Your task to perform on an android device: Show the shopping cart on costco.com. Search for "alienware area 51" on costco.com, select the first entry, and add it to the cart. Image 0: 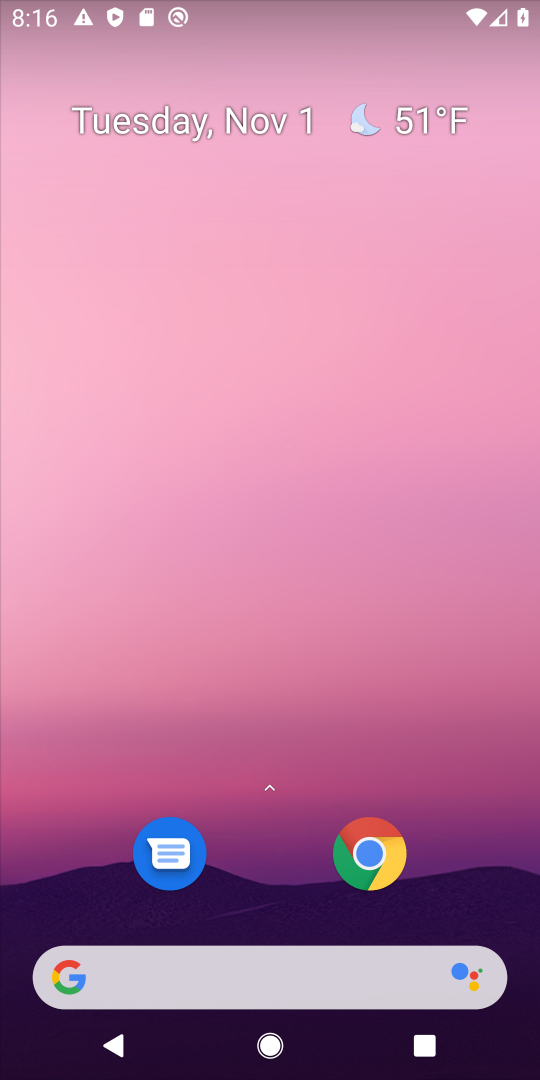
Step 0: click (174, 982)
Your task to perform on an android device: Show the shopping cart on costco.com. Search for "alienware area 51" on costco.com, select the first entry, and add it to the cart. Image 1: 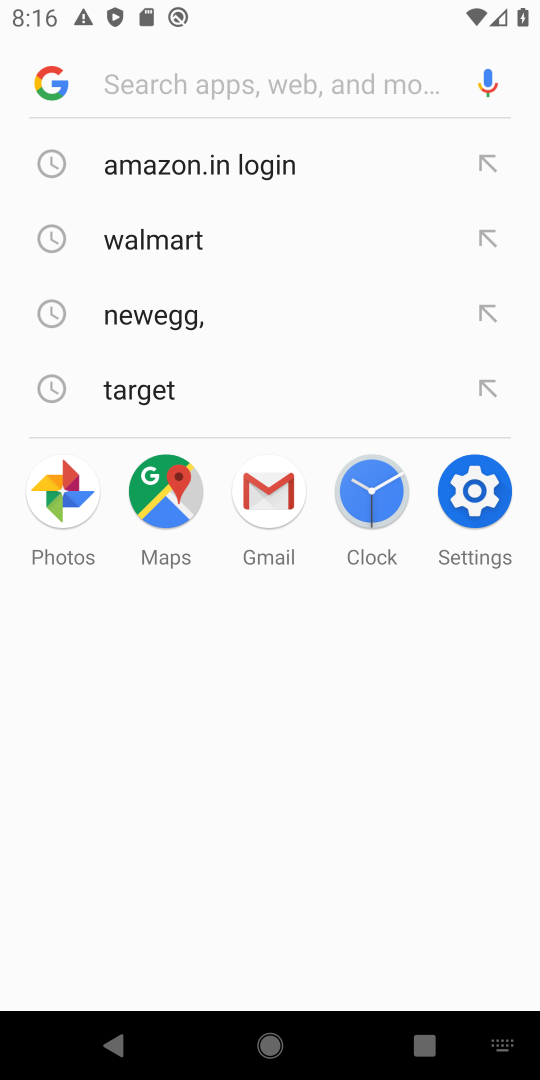
Step 1: type "costco"
Your task to perform on an android device: Show the shopping cart on costco.com. Search for "alienware area 51" on costco.com, select the first entry, and add it to the cart. Image 2: 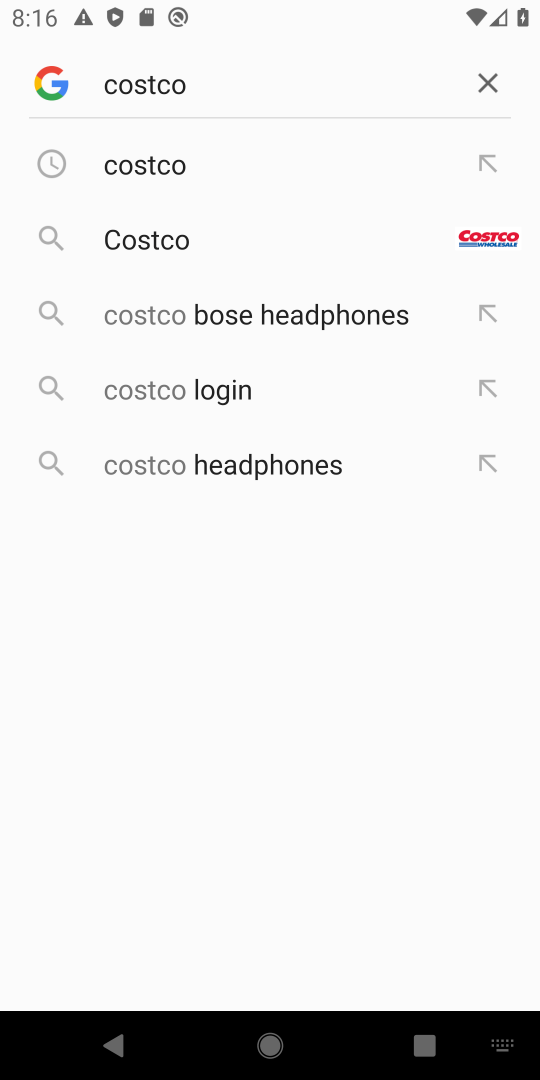
Step 2: click (230, 245)
Your task to perform on an android device: Show the shopping cart on costco.com. Search for "alienware area 51" on costco.com, select the first entry, and add it to the cart. Image 3: 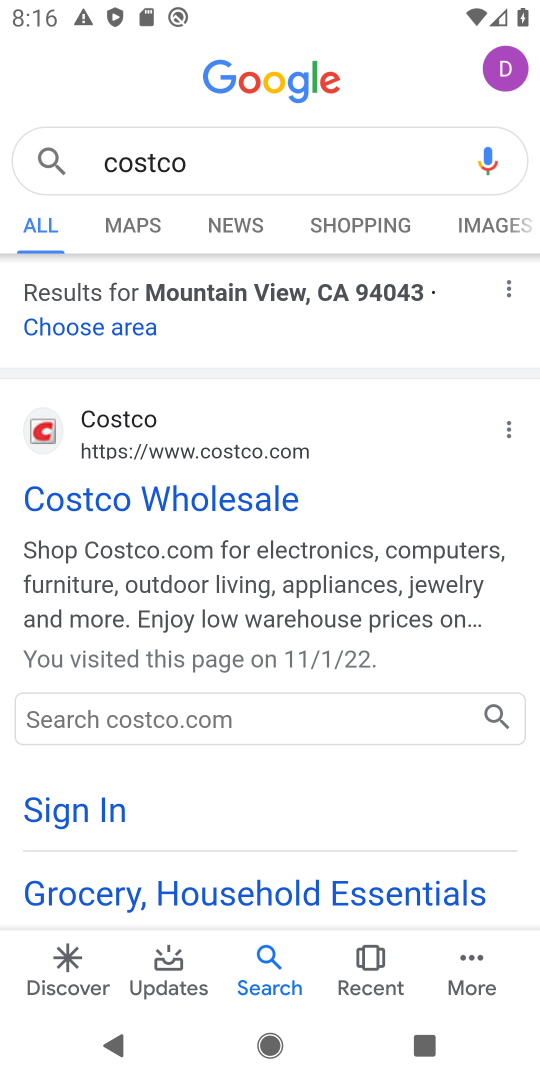
Step 3: click (160, 522)
Your task to perform on an android device: Show the shopping cart on costco.com. Search for "alienware area 51" on costco.com, select the first entry, and add it to the cart. Image 4: 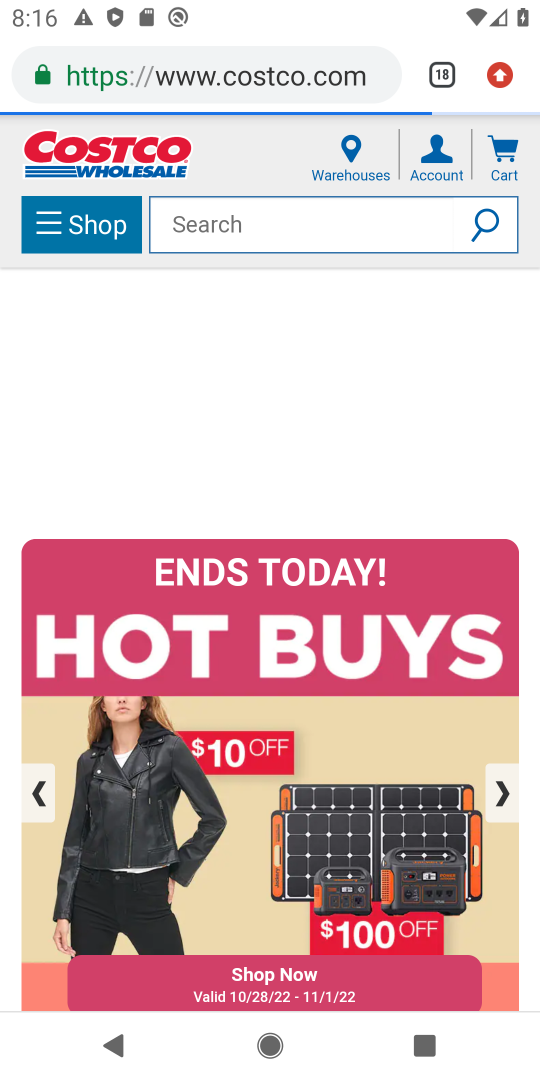
Step 4: click (343, 236)
Your task to perform on an android device: Show the shopping cart on costco.com. Search for "alienware area 51" on costco.com, select the first entry, and add it to the cart. Image 5: 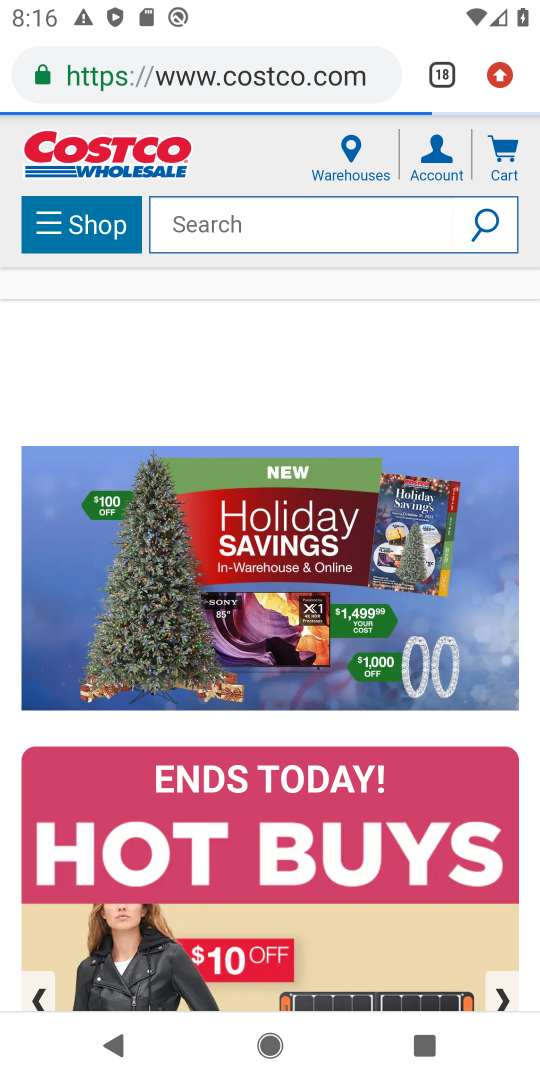
Step 5: type "alienware"
Your task to perform on an android device: Show the shopping cart on costco.com. Search for "alienware area 51" on costco.com, select the first entry, and add it to the cart. Image 6: 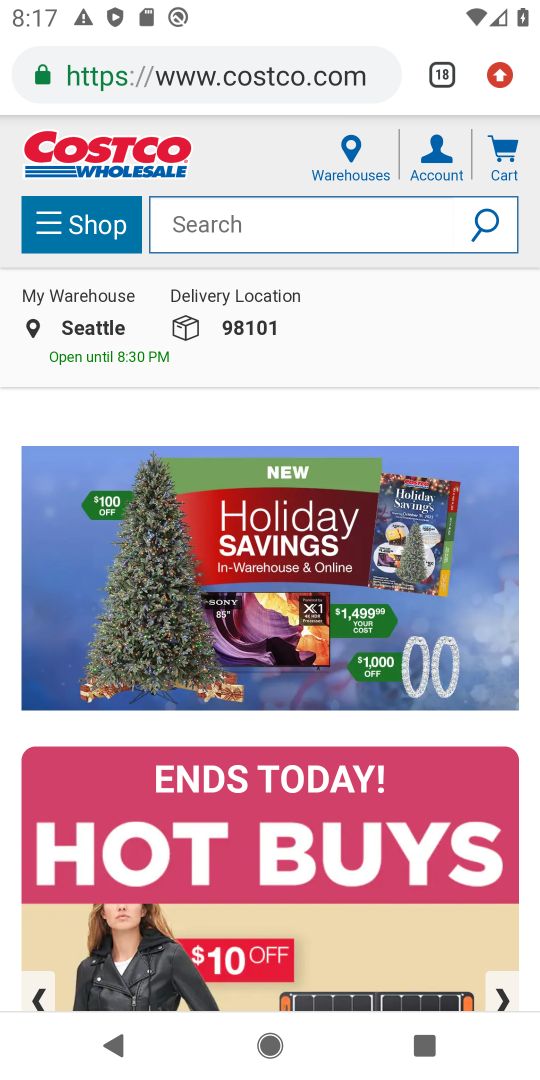
Step 6: click (320, 239)
Your task to perform on an android device: Show the shopping cart on costco.com. Search for "alienware area 51" on costco.com, select the first entry, and add it to the cart. Image 7: 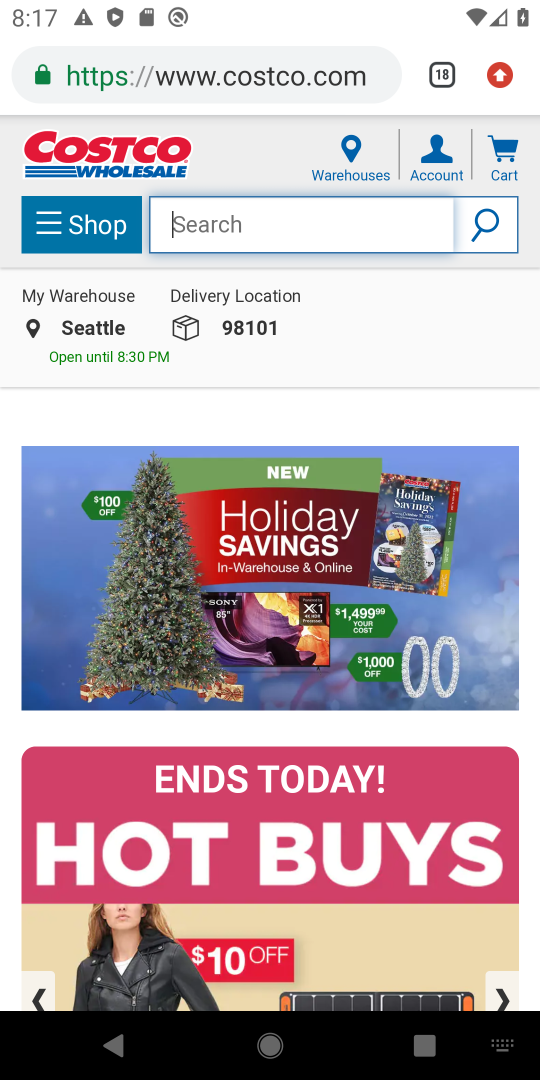
Step 7: type "alenware area 51"
Your task to perform on an android device: Show the shopping cart on costco.com. Search for "alienware area 51" on costco.com, select the first entry, and add it to the cart. Image 8: 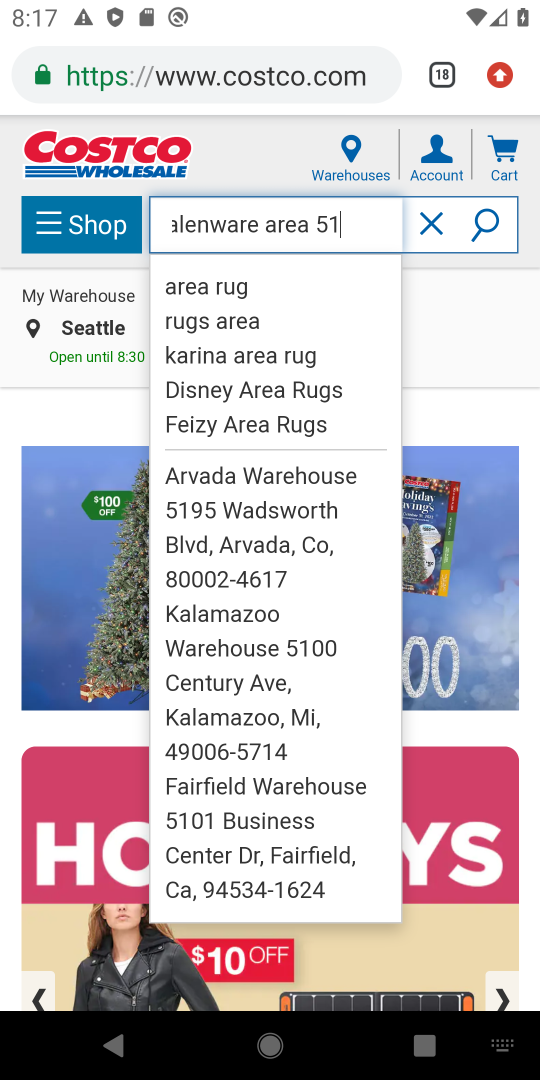
Step 8: click (473, 241)
Your task to perform on an android device: Show the shopping cart on costco.com. Search for "alienware area 51" on costco.com, select the first entry, and add it to the cart. Image 9: 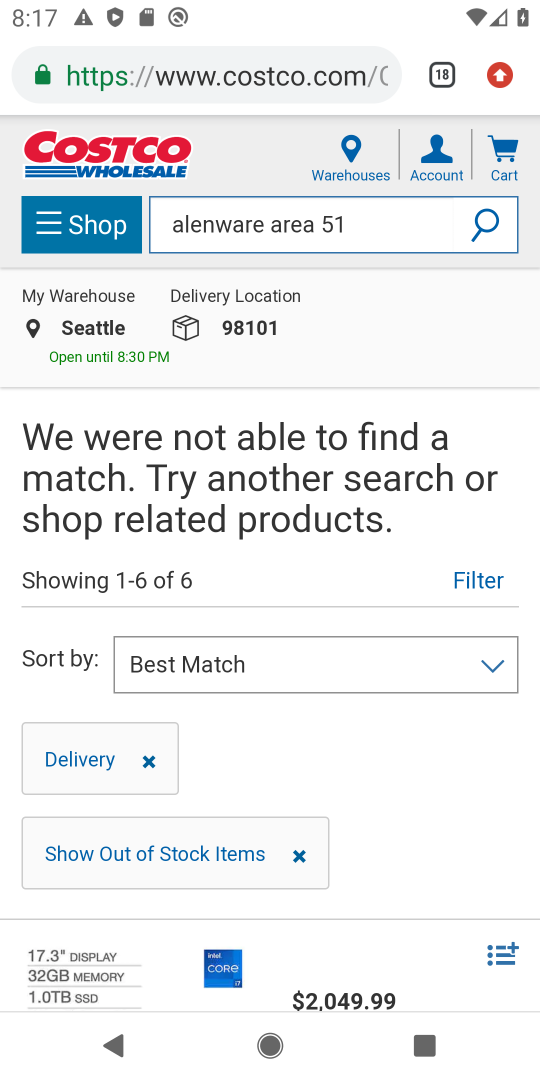
Step 9: click (476, 236)
Your task to perform on an android device: Show the shopping cart on costco.com. Search for "alienware area 51" on costco.com, select the first entry, and add it to the cart. Image 10: 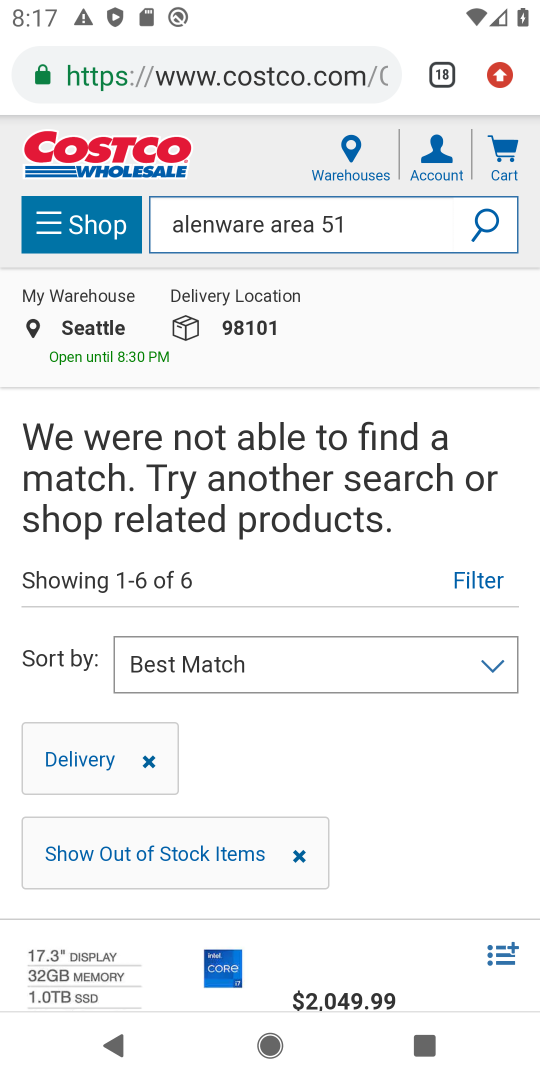
Step 10: task complete